Your task to perform on an android device: Go to Maps Image 0: 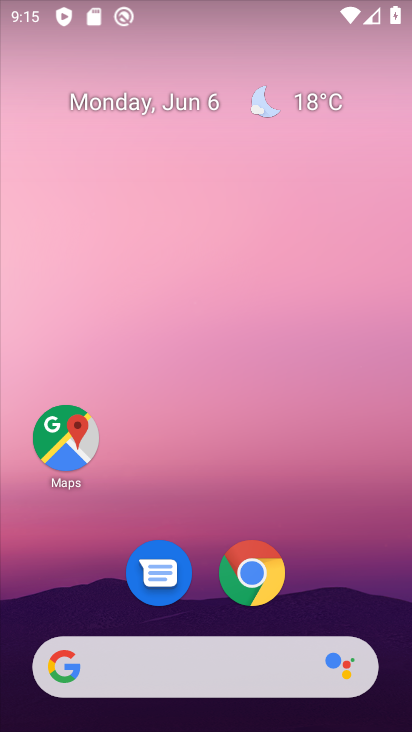
Step 0: click (92, 444)
Your task to perform on an android device: Go to Maps Image 1: 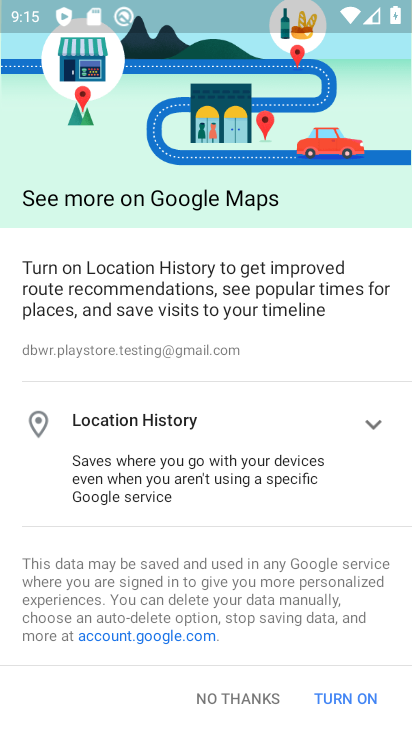
Step 1: click (241, 710)
Your task to perform on an android device: Go to Maps Image 2: 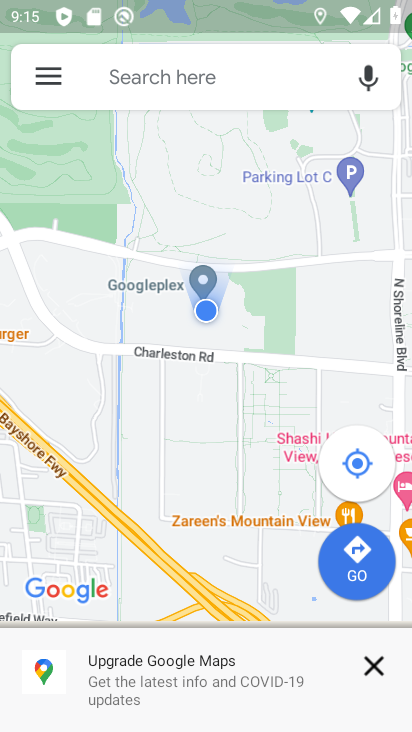
Step 2: task complete